Your task to perform on an android device: turn smart compose on in the gmail app Image 0: 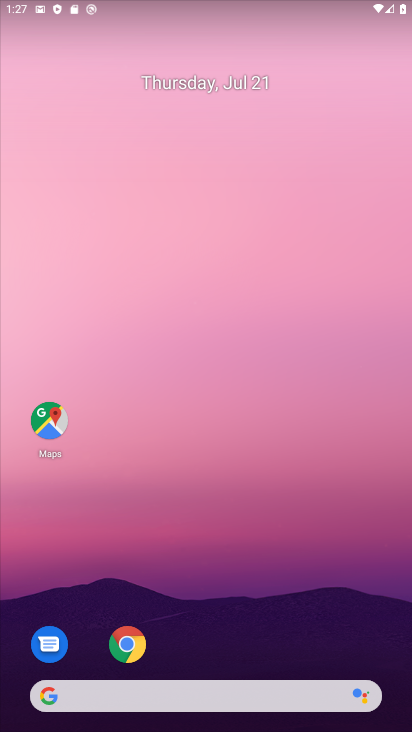
Step 0: drag from (275, 600) to (273, 12)
Your task to perform on an android device: turn smart compose on in the gmail app Image 1: 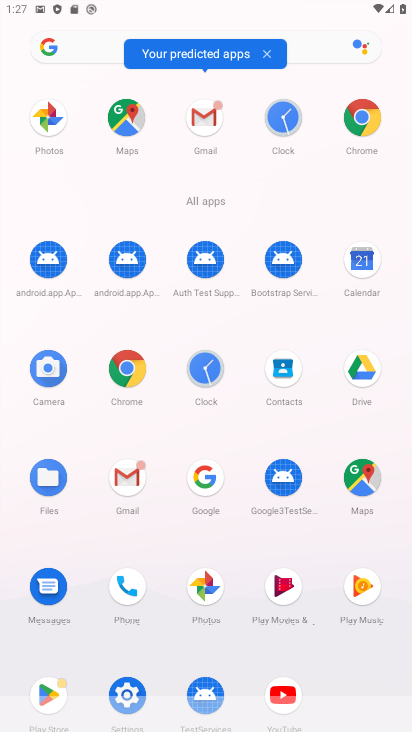
Step 1: click (204, 130)
Your task to perform on an android device: turn smart compose on in the gmail app Image 2: 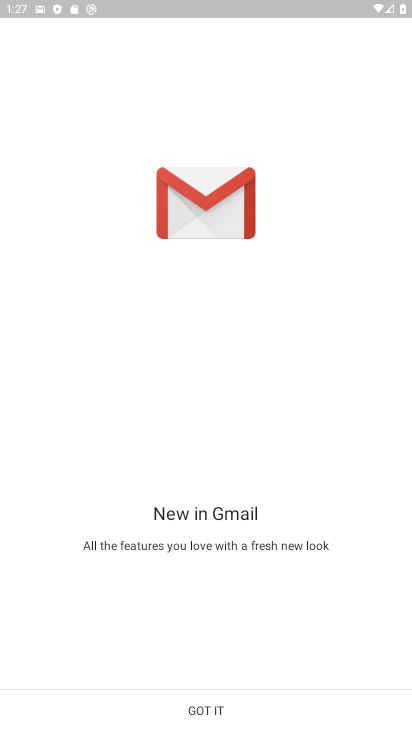
Step 2: click (162, 721)
Your task to perform on an android device: turn smart compose on in the gmail app Image 3: 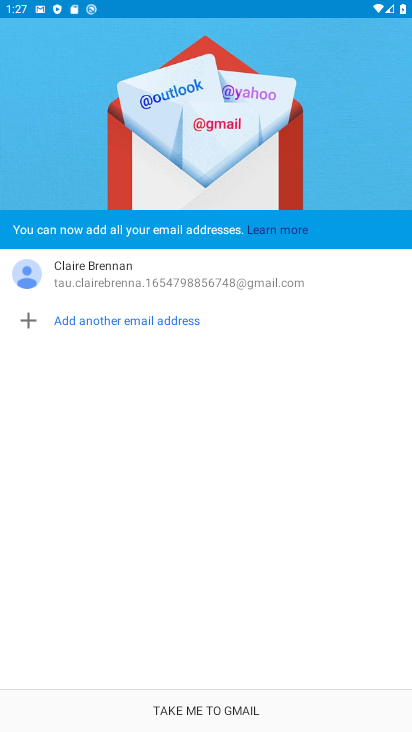
Step 3: click (186, 713)
Your task to perform on an android device: turn smart compose on in the gmail app Image 4: 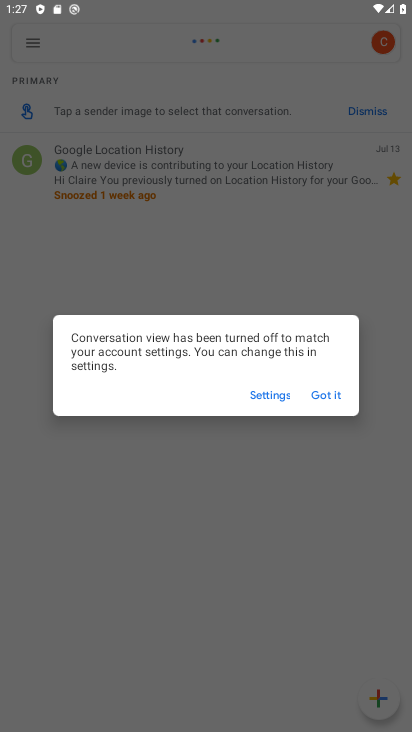
Step 4: click (321, 400)
Your task to perform on an android device: turn smart compose on in the gmail app Image 5: 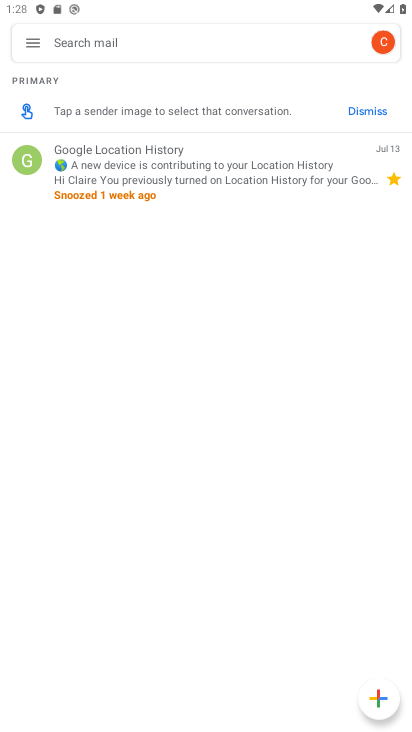
Step 5: click (36, 54)
Your task to perform on an android device: turn smart compose on in the gmail app Image 6: 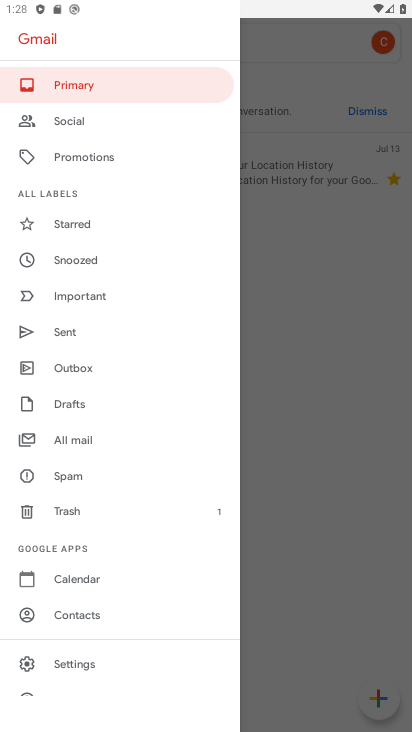
Step 6: click (112, 668)
Your task to perform on an android device: turn smart compose on in the gmail app Image 7: 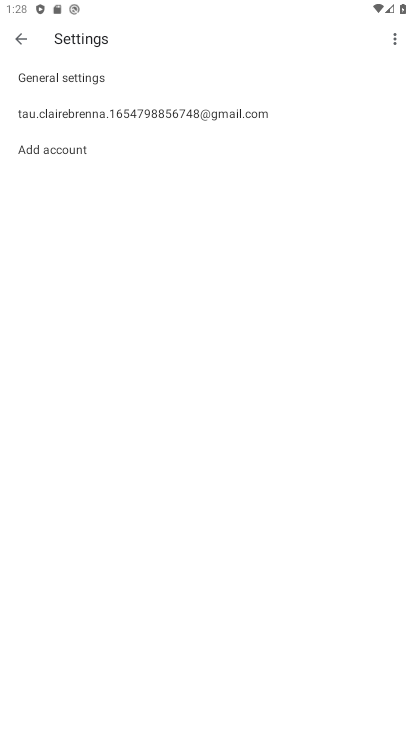
Step 7: click (202, 107)
Your task to perform on an android device: turn smart compose on in the gmail app Image 8: 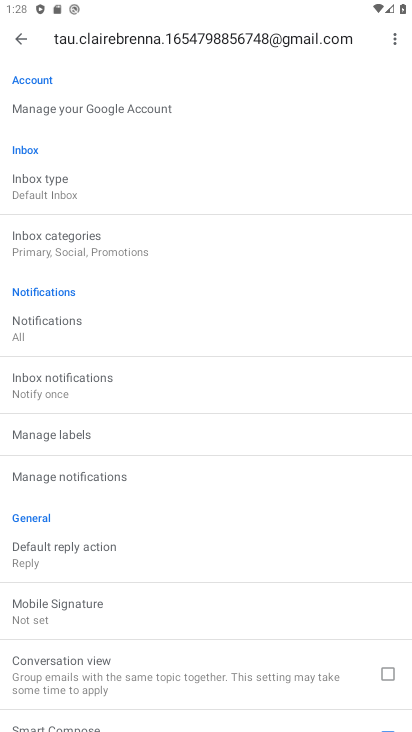
Step 8: task complete